Your task to perform on an android device: turn on bluetooth scan Image 0: 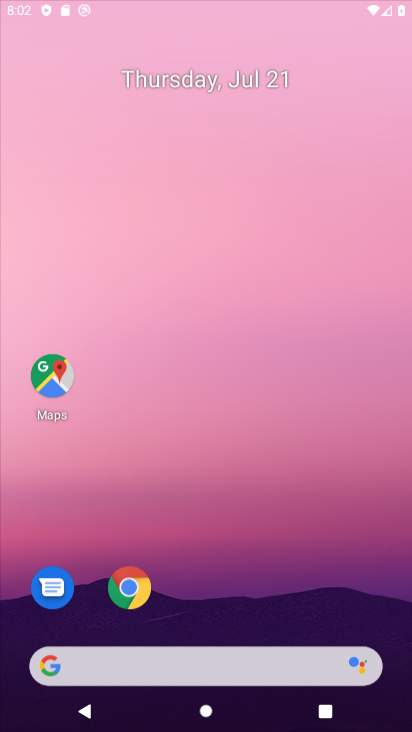
Step 0: drag from (212, 360) to (221, 202)
Your task to perform on an android device: turn on bluetooth scan Image 1: 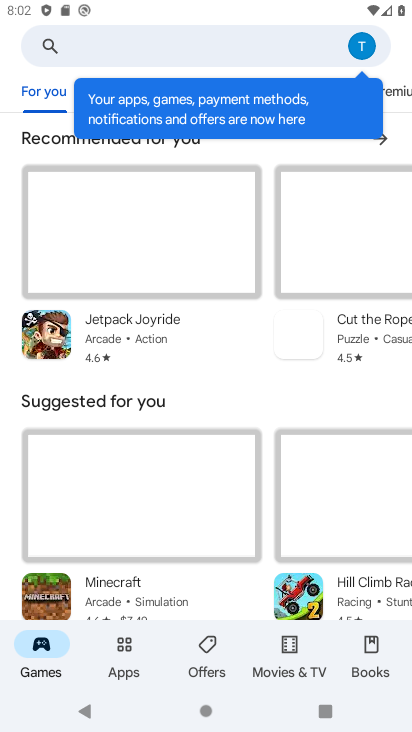
Step 1: press back button
Your task to perform on an android device: turn on bluetooth scan Image 2: 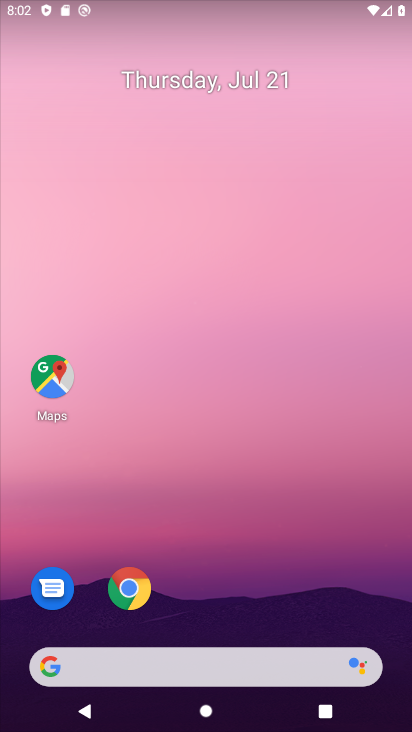
Step 2: drag from (227, 683) to (167, 269)
Your task to perform on an android device: turn on bluetooth scan Image 3: 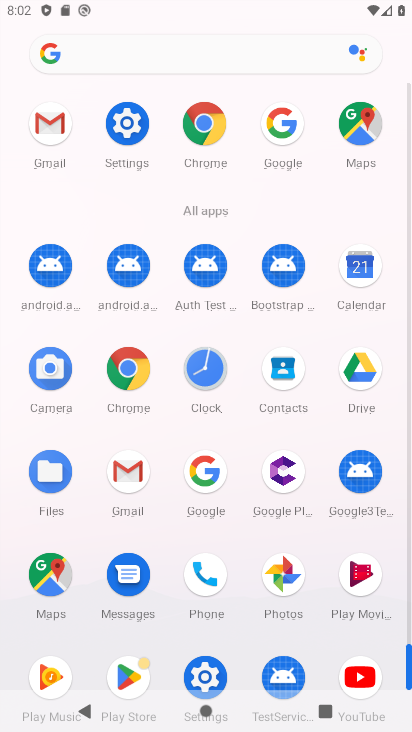
Step 3: click (129, 116)
Your task to perform on an android device: turn on bluetooth scan Image 4: 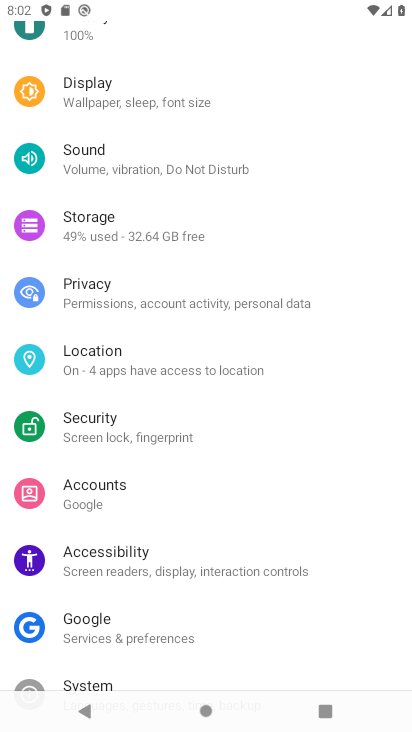
Step 4: drag from (97, 93) to (127, 603)
Your task to perform on an android device: turn on bluetooth scan Image 5: 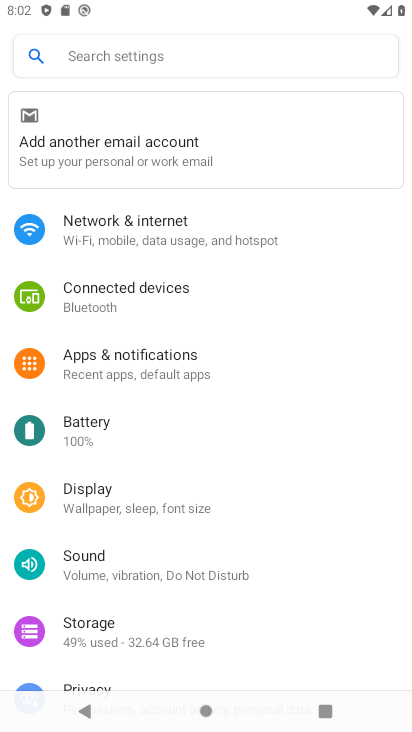
Step 5: drag from (131, 574) to (190, 160)
Your task to perform on an android device: turn on bluetooth scan Image 6: 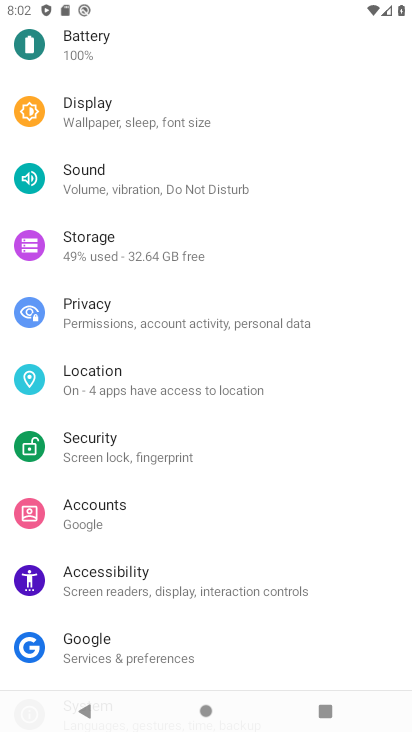
Step 6: drag from (178, 488) to (195, 225)
Your task to perform on an android device: turn on bluetooth scan Image 7: 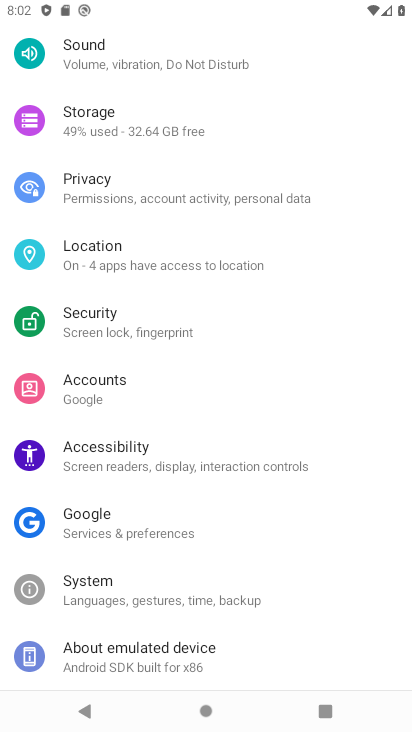
Step 7: click (94, 274)
Your task to perform on an android device: turn on bluetooth scan Image 8: 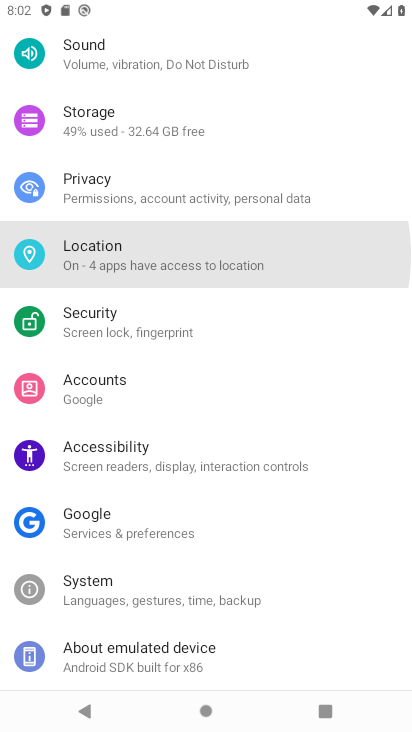
Step 8: click (96, 270)
Your task to perform on an android device: turn on bluetooth scan Image 9: 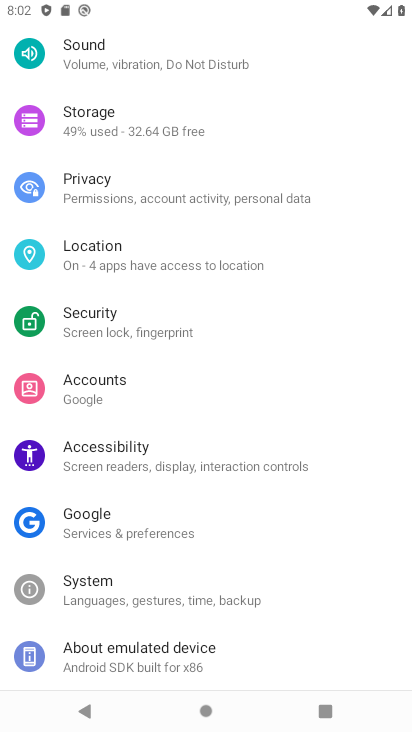
Step 9: click (96, 270)
Your task to perform on an android device: turn on bluetooth scan Image 10: 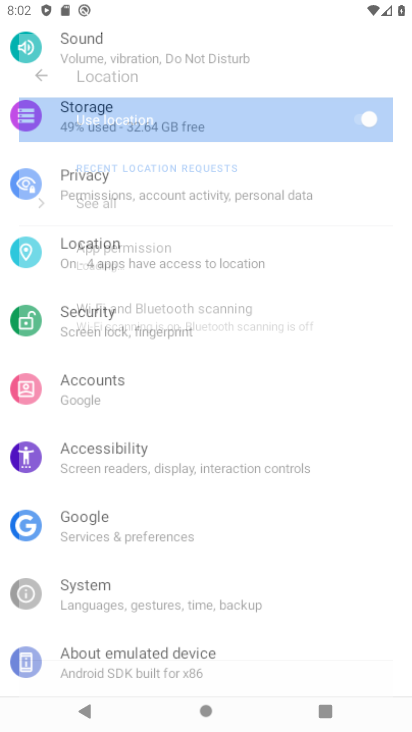
Step 10: click (97, 269)
Your task to perform on an android device: turn on bluetooth scan Image 11: 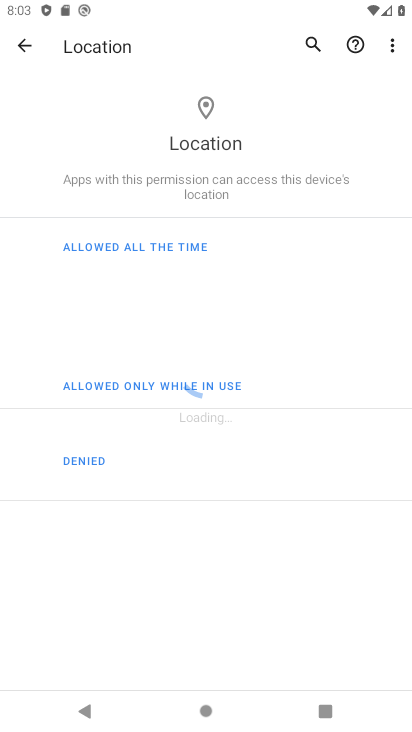
Step 11: click (27, 46)
Your task to perform on an android device: turn on bluetooth scan Image 12: 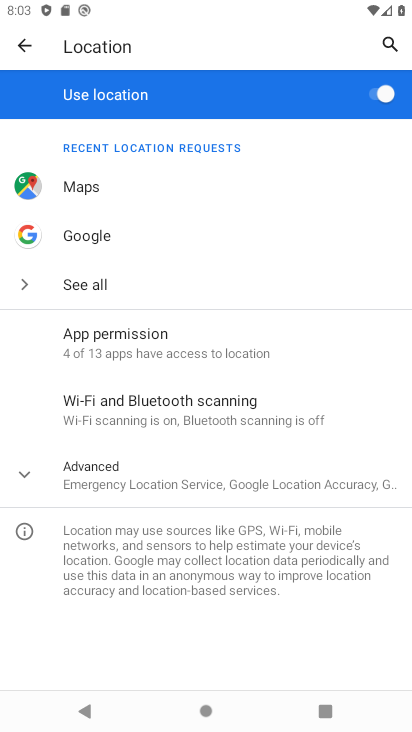
Step 12: click (130, 407)
Your task to perform on an android device: turn on bluetooth scan Image 13: 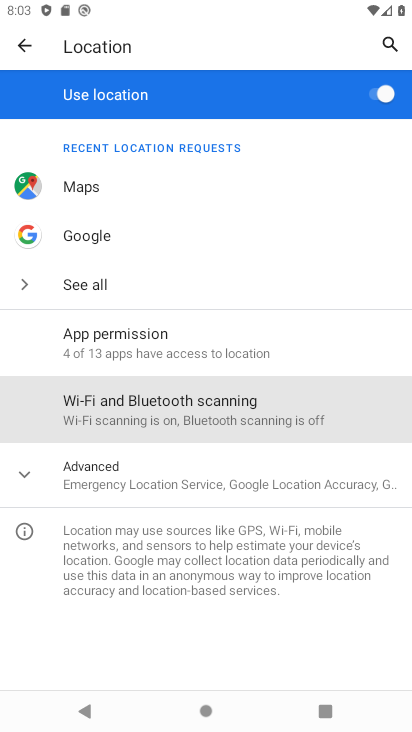
Step 13: click (130, 406)
Your task to perform on an android device: turn on bluetooth scan Image 14: 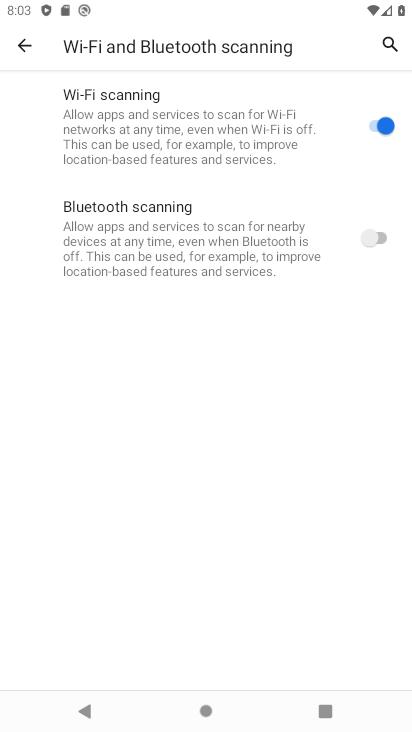
Step 14: click (366, 232)
Your task to perform on an android device: turn on bluetooth scan Image 15: 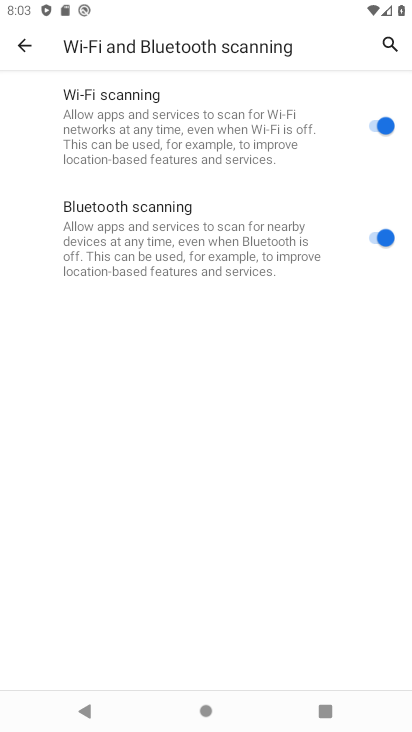
Step 15: task complete